Your task to perform on an android device: see creations saved in the google photos Image 0: 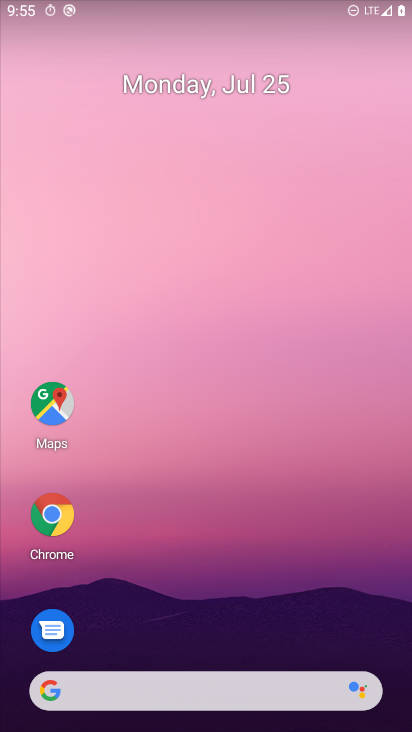
Step 0: drag from (18, 677) to (244, 210)
Your task to perform on an android device: see creations saved in the google photos Image 1: 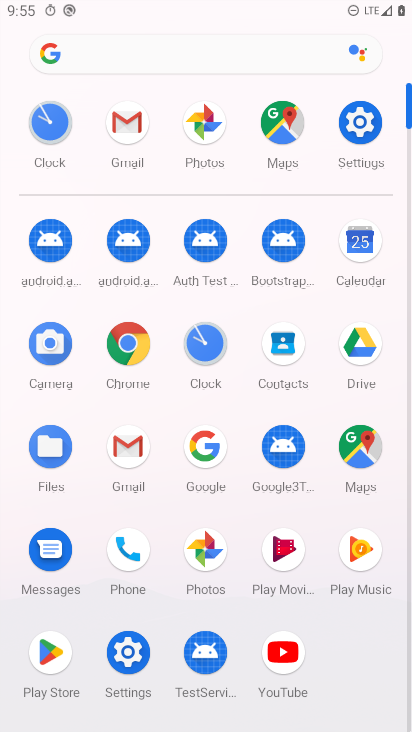
Step 1: click (224, 565)
Your task to perform on an android device: see creations saved in the google photos Image 2: 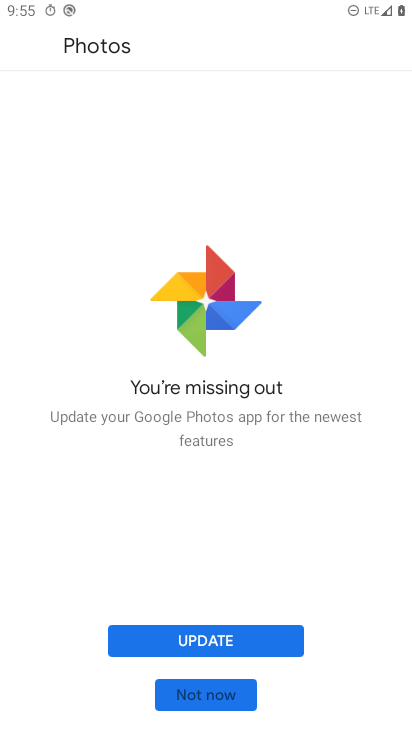
Step 2: click (211, 689)
Your task to perform on an android device: see creations saved in the google photos Image 3: 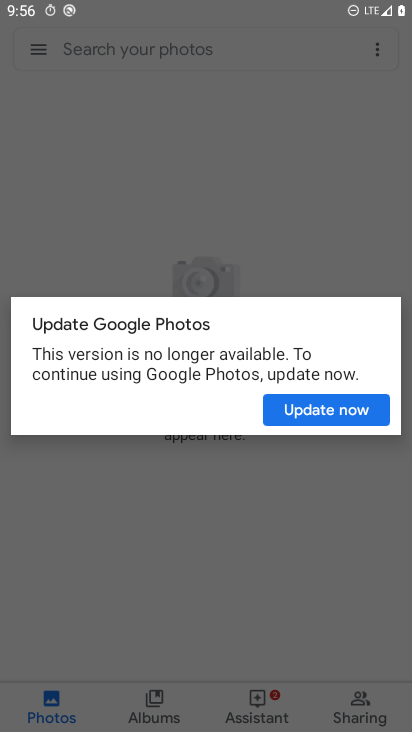
Step 3: click (320, 416)
Your task to perform on an android device: see creations saved in the google photos Image 4: 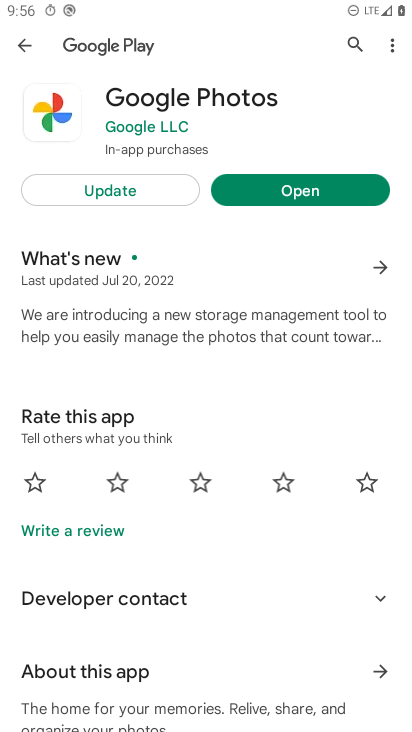
Step 4: task complete